Your task to perform on an android device: toggle notifications settings in the gmail app Image 0: 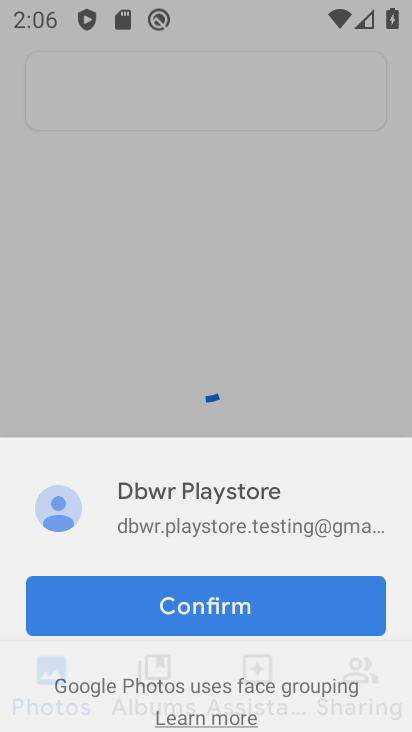
Step 0: press home button
Your task to perform on an android device: toggle notifications settings in the gmail app Image 1: 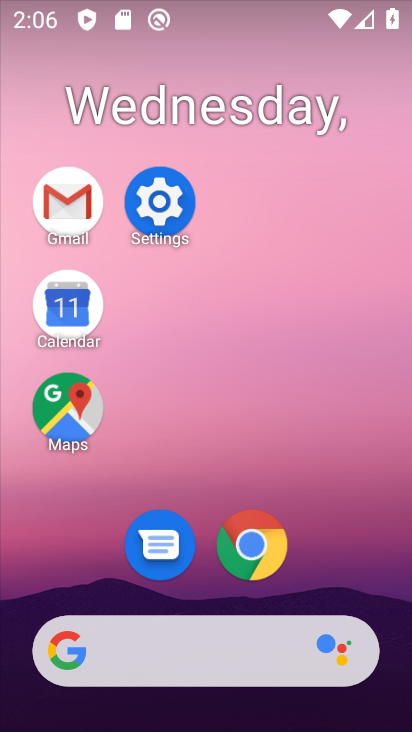
Step 1: click (183, 192)
Your task to perform on an android device: toggle notifications settings in the gmail app Image 2: 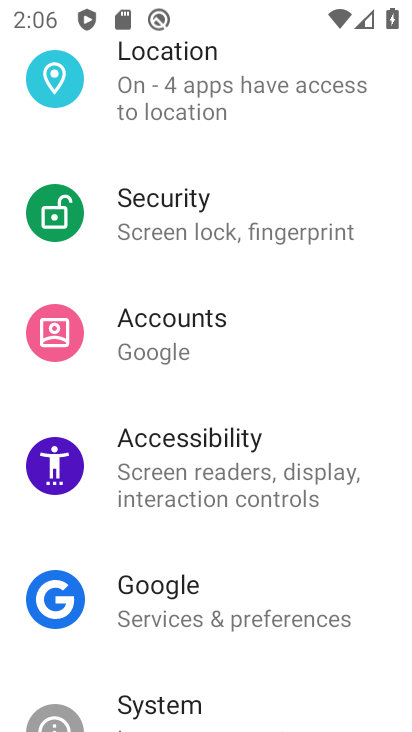
Step 2: drag from (310, 140) to (195, 549)
Your task to perform on an android device: toggle notifications settings in the gmail app Image 3: 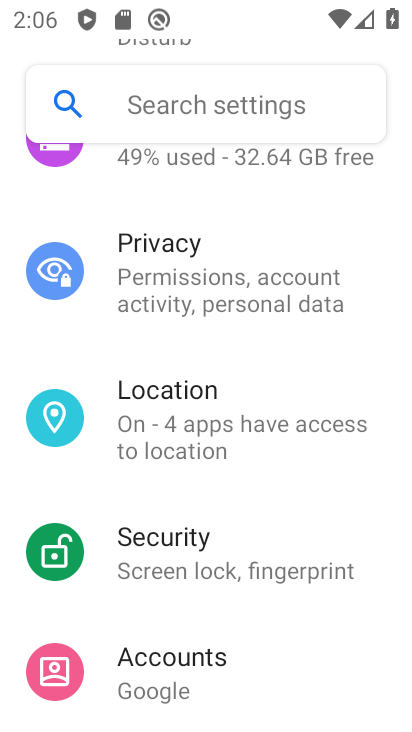
Step 3: drag from (312, 222) to (297, 539)
Your task to perform on an android device: toggle notifications settings in the gmail app Image 4: 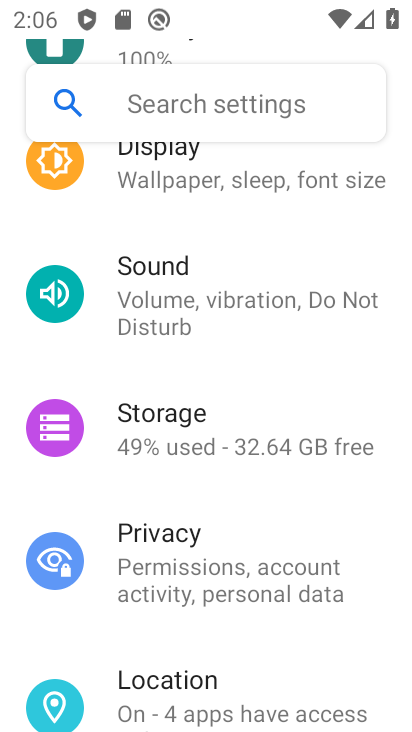
Step 4: drag from (295, 244) to (210, 573)
Your task to perform on an android device: toggle notifications settings in the gmail app Image 5: 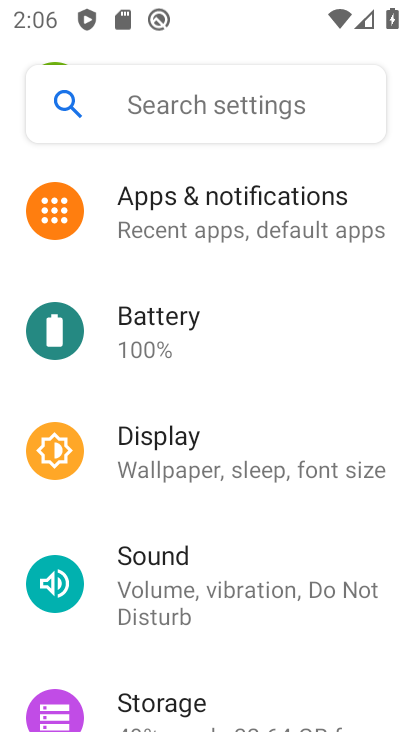
Step 5: click (304, 203)
Your task to perform on an android device: toggle notifications settings in the gmail app Image 6: 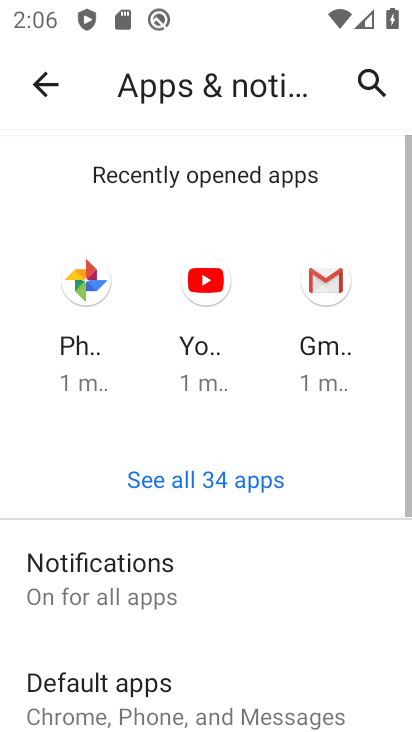
Step 6: drag from (230, 618) to (344, 123)
Your task to perform on an android device: toggle notifications settings in the gmail app Image 7: 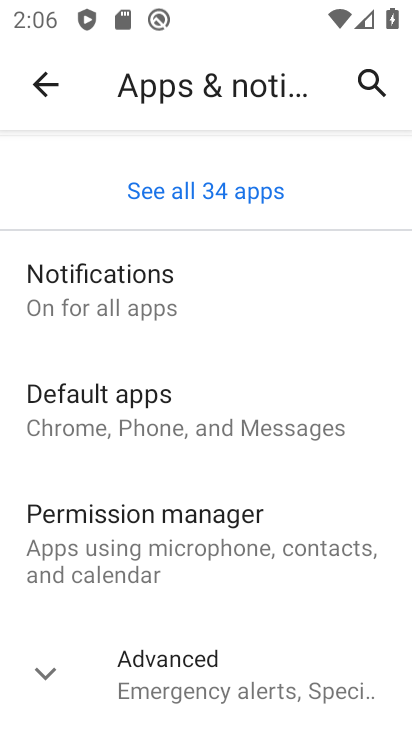
Step 7: click (217, 659)
Your task to perform on an android device: toggle notifications settings in the gmail app Image 8: 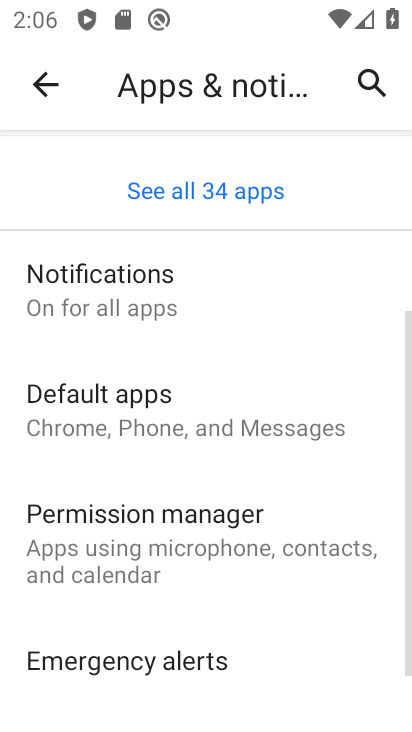
Step 8: drag from (276, 655) to (368, 219)
Your task to perform on an android device: toggle notifications settings in the gmail app Image 9: 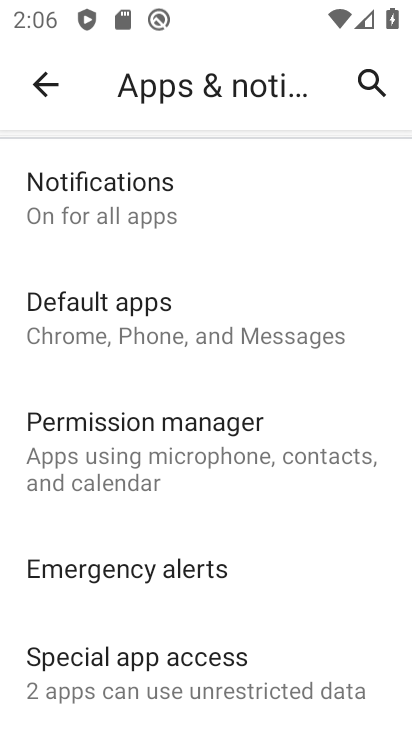
Step 9: click (223, 197)
Your task to perform on an android device: toggle notifications settings in the gmail app Image 10: 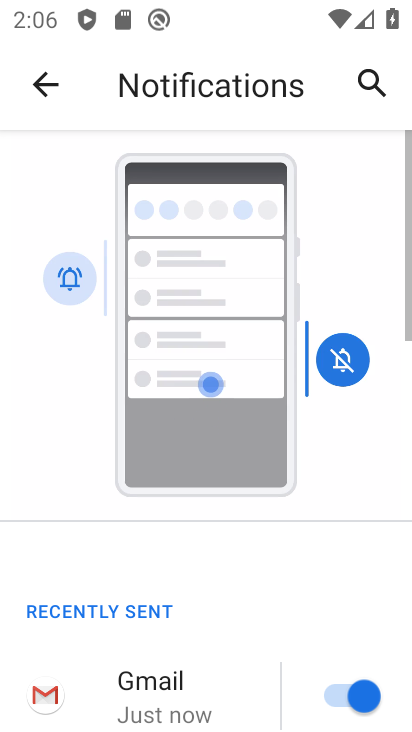
Step 10: drag from (248, 660) to (348, 145)
Your task to perform on an android device: toggle notifications settings in the gmail app Image 11: 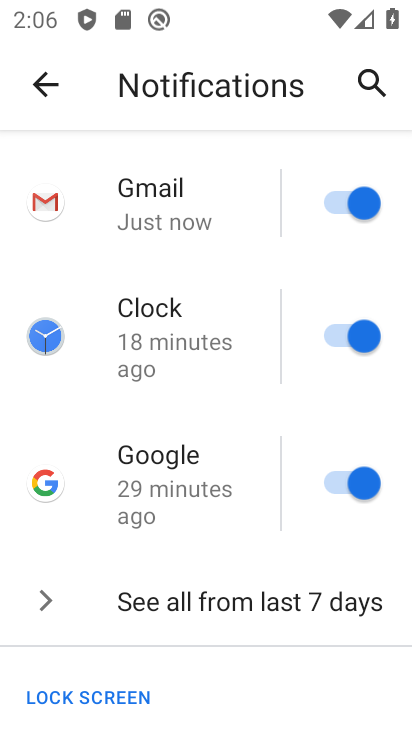
Step 11: drag from (178, 689) to (324, 195)
Your task to perform on an android device: toggle notifications settings in the gmail app Image 12: 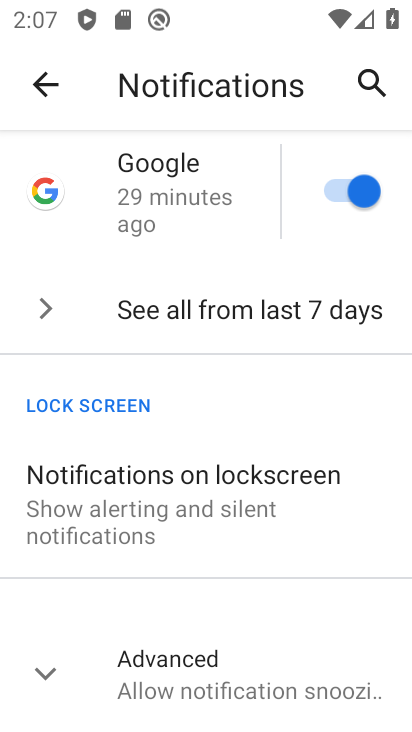
Step 12: click (270, 677)
Your task to perform on an android device: toggle notifications settings in the gmail app Image 13: 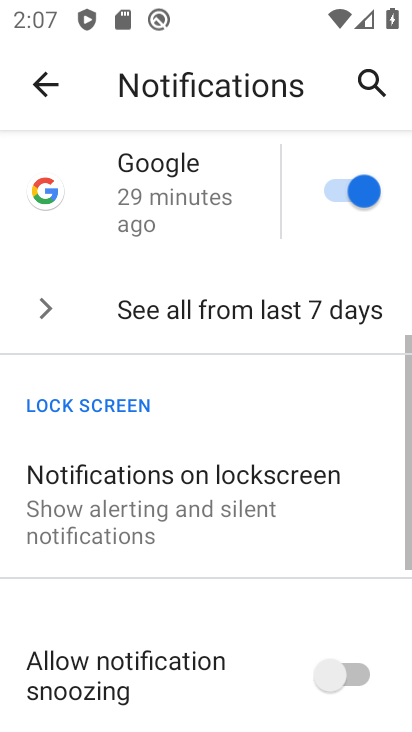
Step 13: drag from (270, 677) to (309, 234)
Your task to perform on an android device: toggle notifications settings in the gmail app Image 14: 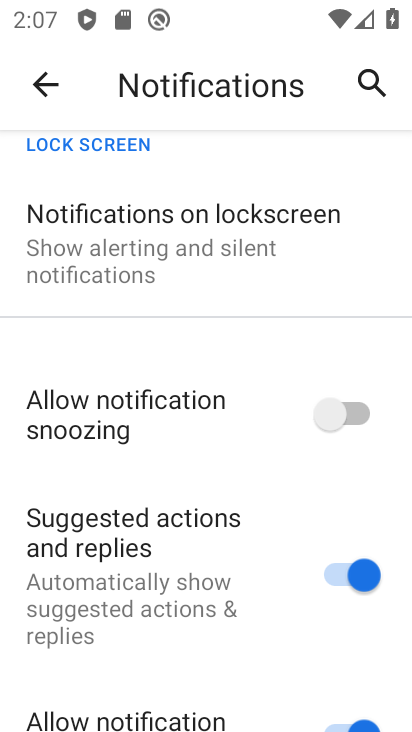
Step 14: click (344, 427)
Your task to perform on an android device: toggle notifications settings in the gmail app Image 15: 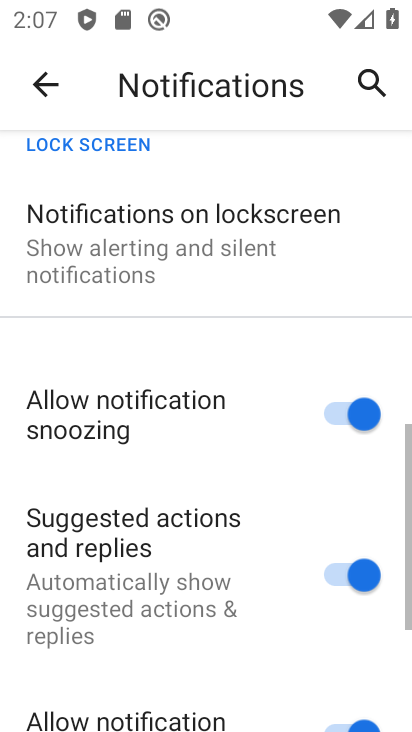
Step 15: click (348, 585)
Your task to perform on an android device: toggle notifications settings in the gmail app Image 16: 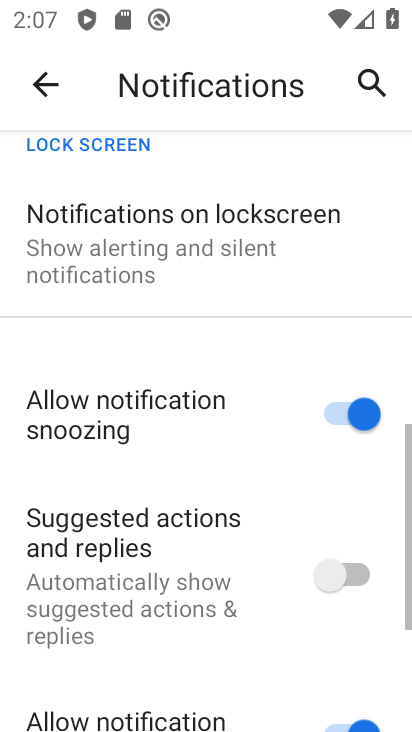
Step 16: click (360, 723)
Your task to perform on an android device: toggle notifications settings in the gmail app Image 17: 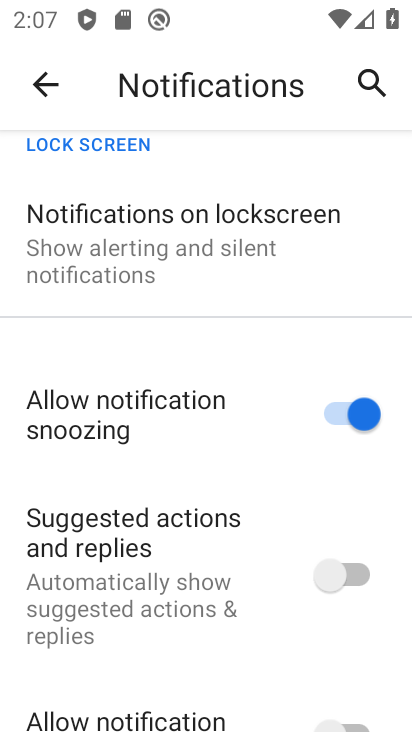
Step 17: task complete